Your task to perform on an android device: turn off smart reply in the gmail app Image 0: 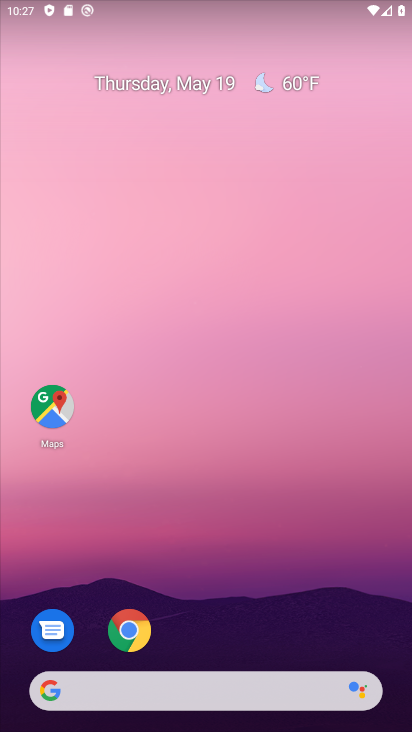
Step 0: drag from (303, 705) to (178, 151)
Your task to perform on an android device: turn off smart reply in the gmail app Image 1: 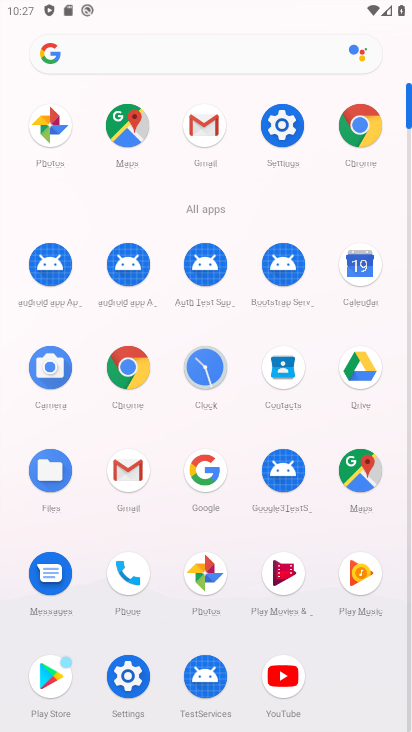
Step 1: click (207, 139)
Your task to perform on an android device: turn off smart reply in the gmail app Image 2: 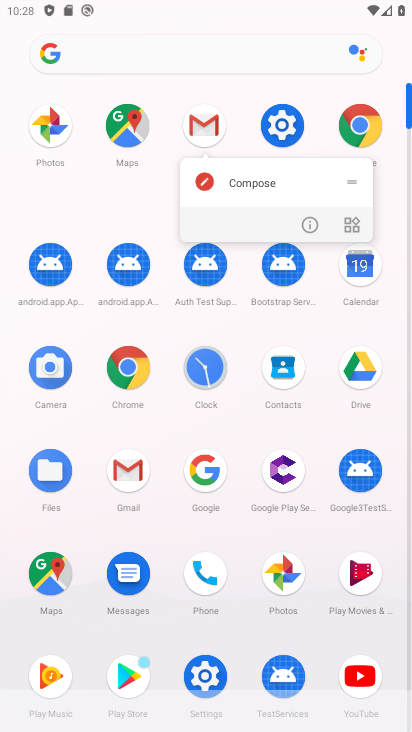
Step 2: click (203, 123)
Your task to perform on an android device: turn off smart reply in the gmail app Image 3: 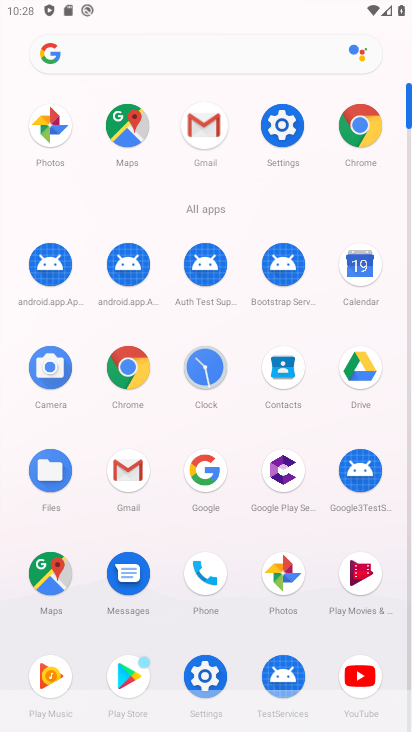
Step 3: click (203, 123)
Your task to perform on an android device: turn off smart reply in the gmail app Image 4: 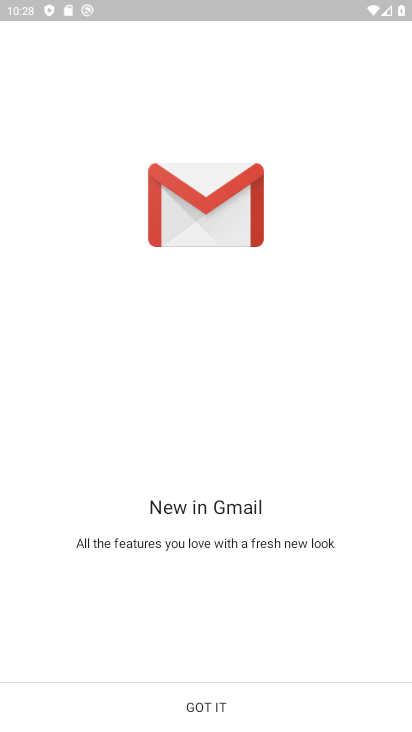
Step 4: click (199, 702)
Your task to perform on an android device: turn off smart reply in the gmail app Image 5: 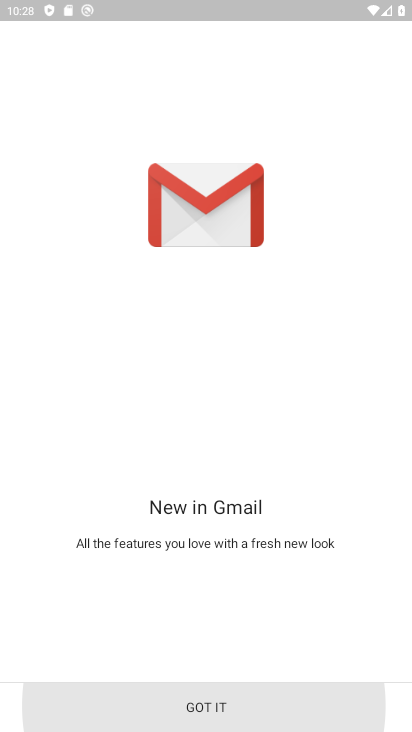
Step 5: click (201, 700)
Your task to perform on an android device: turn off smart reply in the gmail app Image 6: 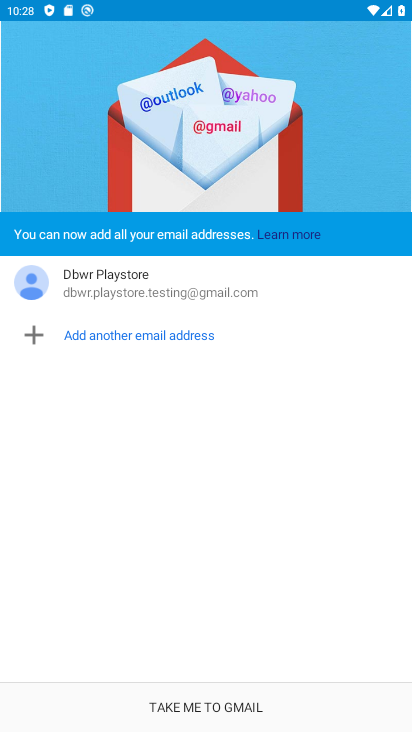
Step 6: click (191, 691)
Your task to perform on an android device: turn off smart reply in the gmail app Image 7: 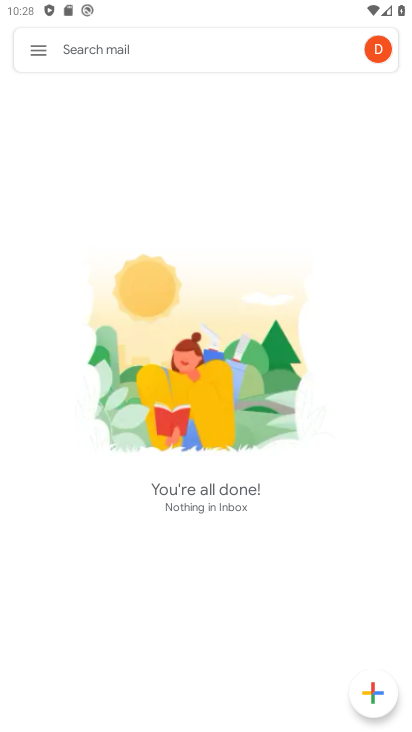
Step 7: click (30, 50)
Your task to perform on an android device: turn off smart reply in the gmail app Image 8: 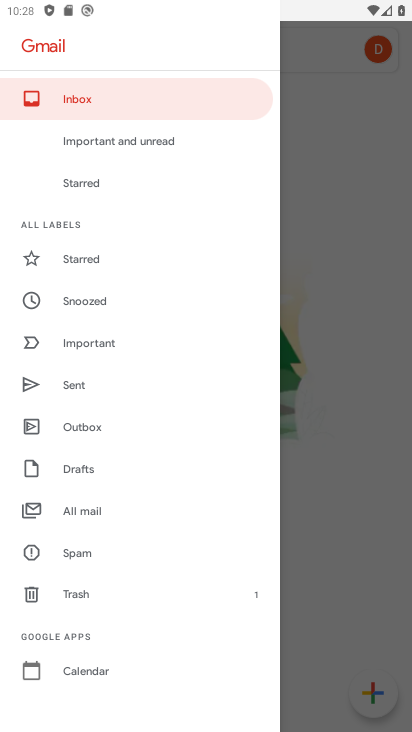
Step 8: drag from (108, 597) to (69, 166)
Your task to perform on an android device: turn off smart reply in the gmail app Image 9: 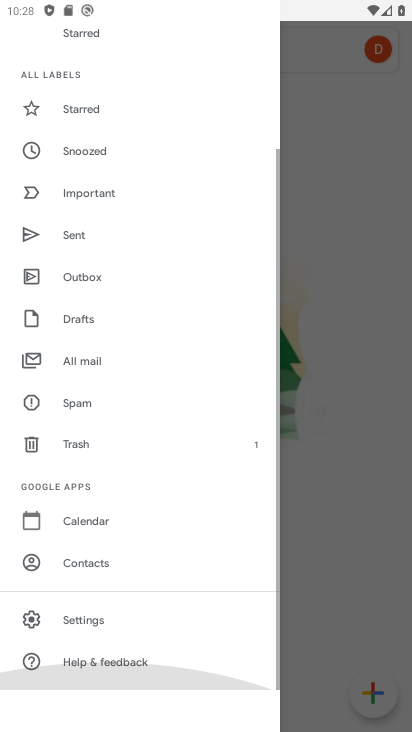
Step 9: drag from (96, 596) to (107, 197)
Your task to perform on an android device: turn off smart reply in the gmail app Image 10: 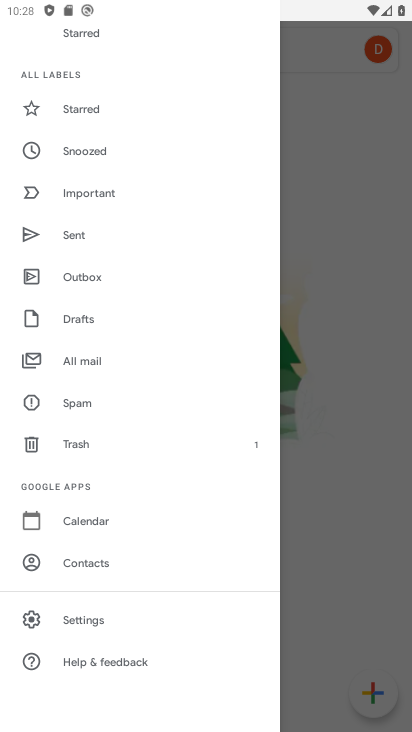
Step 10: click (78, 618)
Your task to perform on an android device: turn off smart reply in the gmail app Image 11: 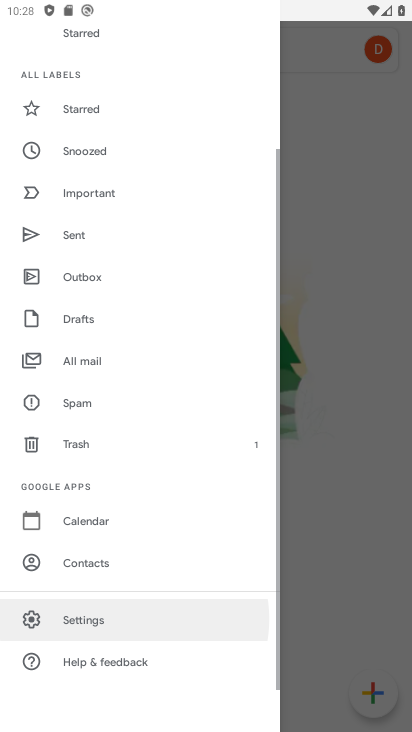
Step 11: click (80, 616)
Your task to perform on an android device: turn off smart reply in the gmail app Image 12: 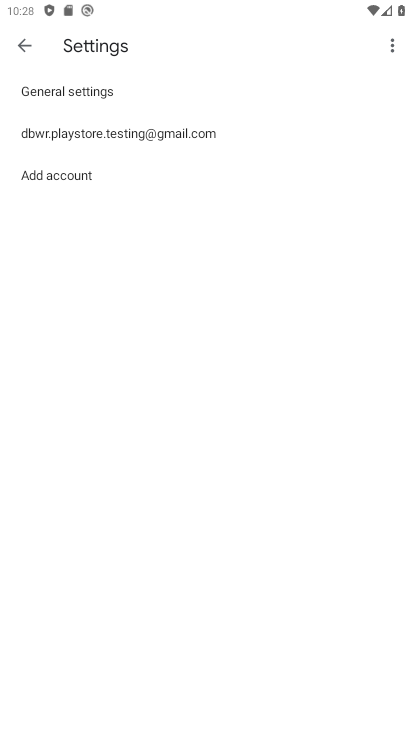
Step 12: click (99, 149)
Your task to perform on an android device: turn off smart reply in the gmail app Image 13: 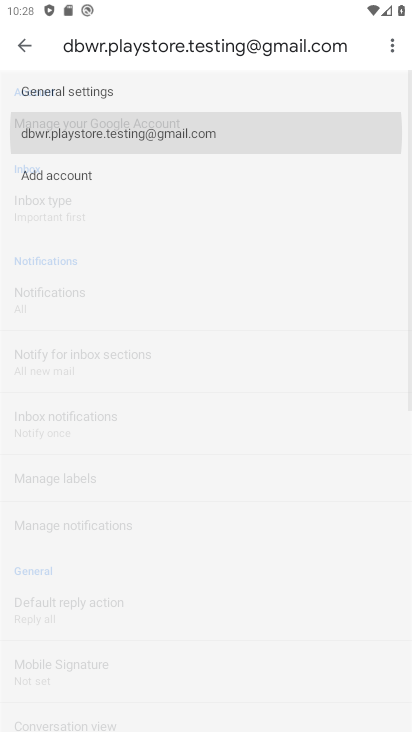
Step 13: click (92, 131)
Your task to perform on an android device: turn off smart reply in the gmail app Image 14: 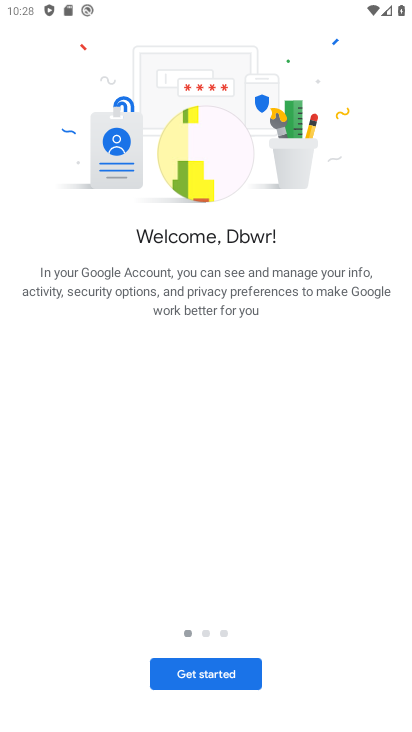
Step 14: click (206, 661)
Your task to perform on an android device: turn off smart reply in the gmail app Image 15: 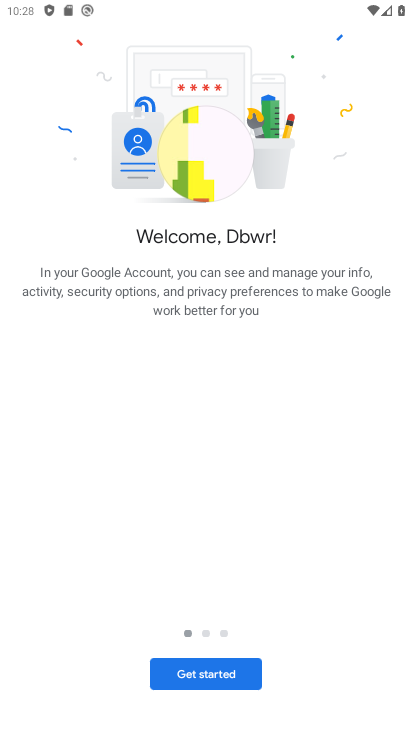
Step 15: click (206, 671)
Your task to perform on an android device: turn off smart reply in the gmail app Image 16: 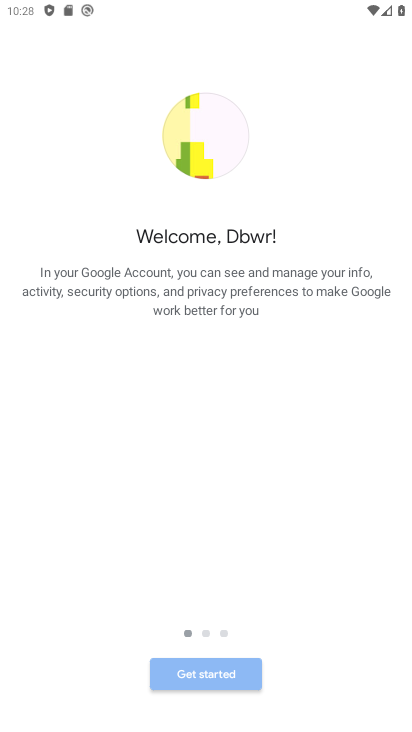
Step 16: click (206, 671)
Your task to perform on an android device: turn off smart reply in the gmail app Image 17: 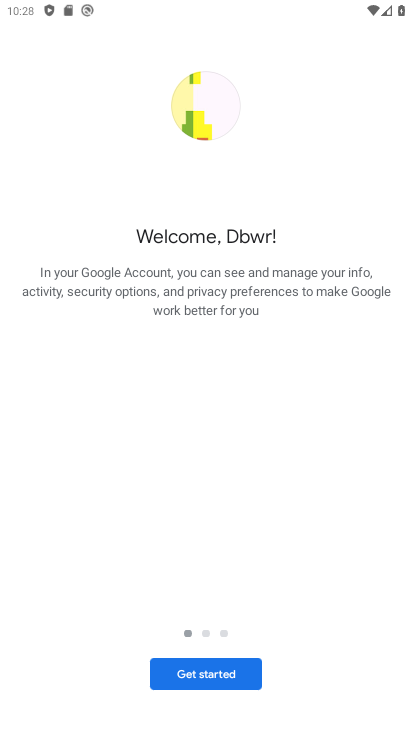
Step 17: click (207, 671)
Your task to perform on an android device: turn off smart reply in the gmail app Image 18: 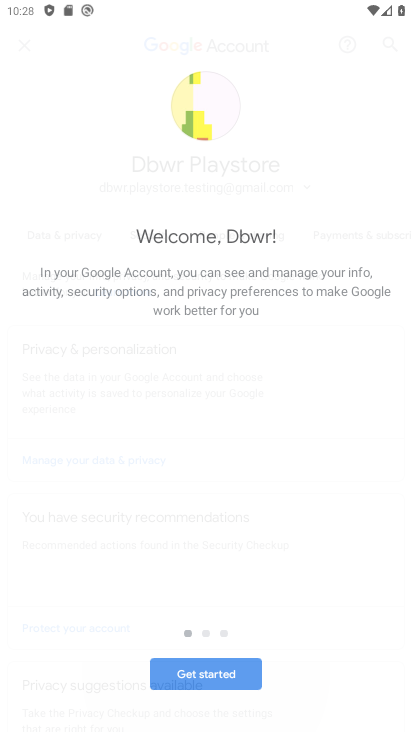
Step 18: click (208, 671)
Your task to perform on an android device: turn off smart reply in the gmail app Image 19: 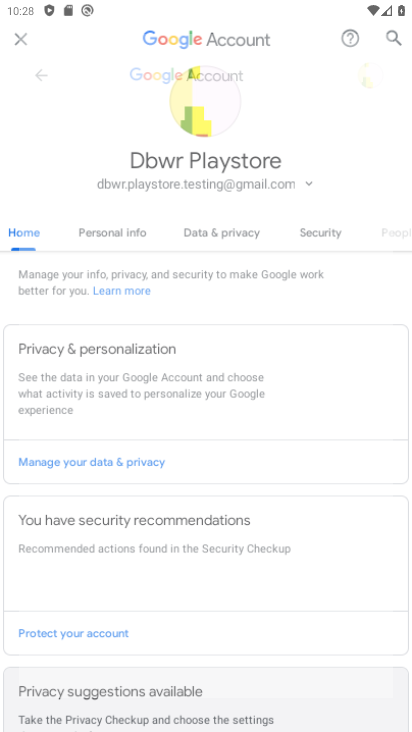
Step 19: click (210, 666)
Your task to perform on an android device: turn off smart reply in the gmail app Image 20: 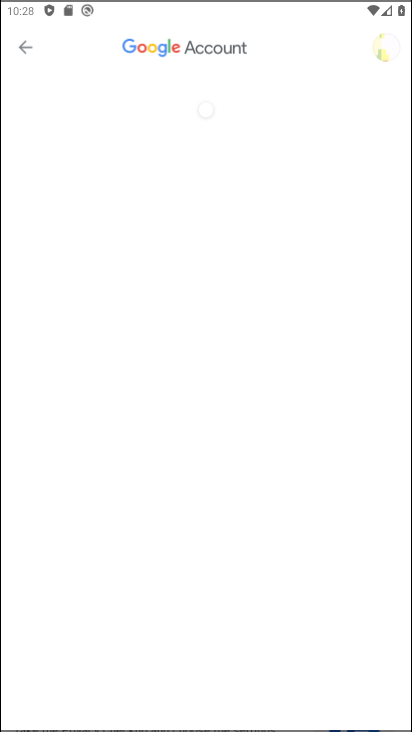
Step 20: click (213, 655)
Your task to perform on an android device: turn off smart reply in the gmail app Image 21: 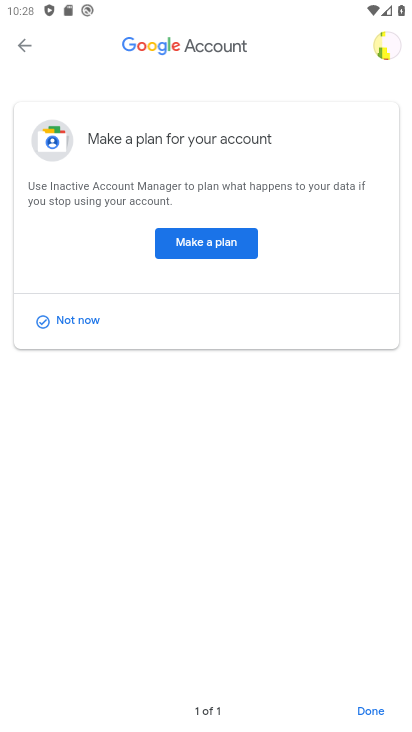
Step 21: task complete